Your task to perform on an android device: Go to ESPN.com Image 0: 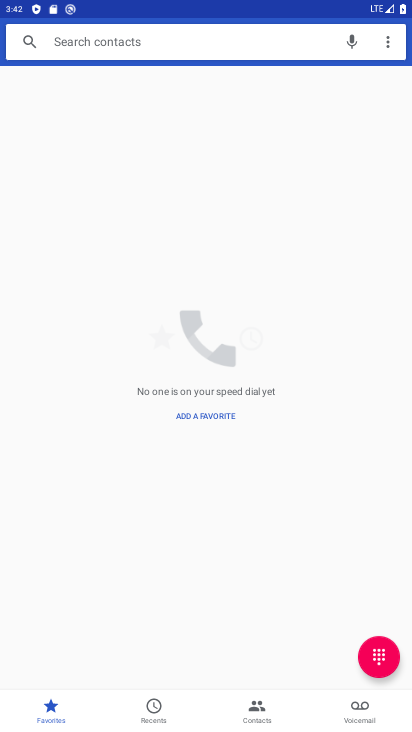
Step 0: press home button
Your task to perform on an android device: Go to ESPN.com Image 1: 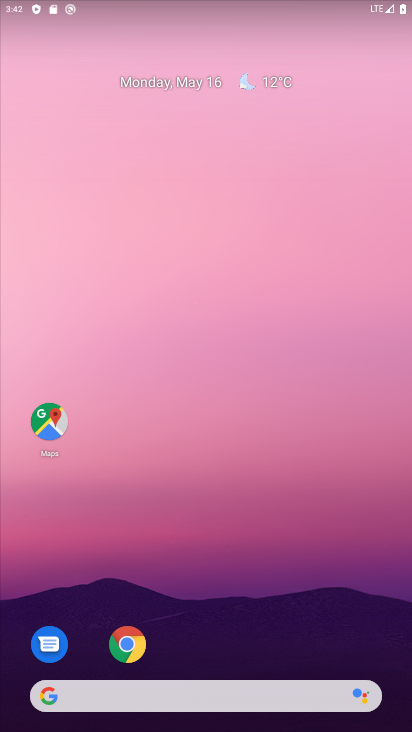
Step 1: click (138, 629)
Your task to perform on an android device: Go to ESPN.com Image 2: 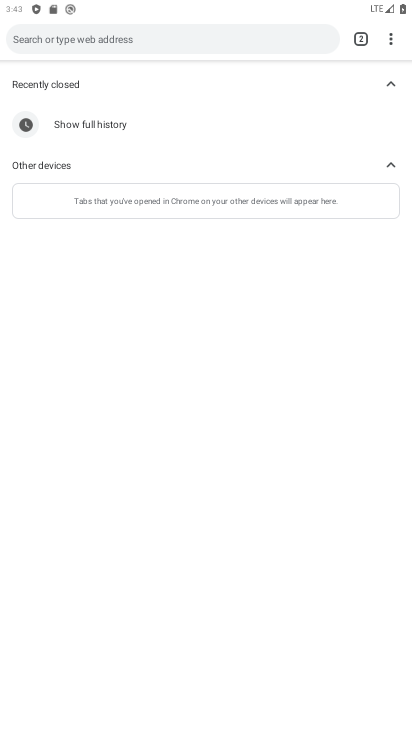
Step 2: click (360, 35)
Your task to perform on an android device: Go to ESPN.com Image 3: 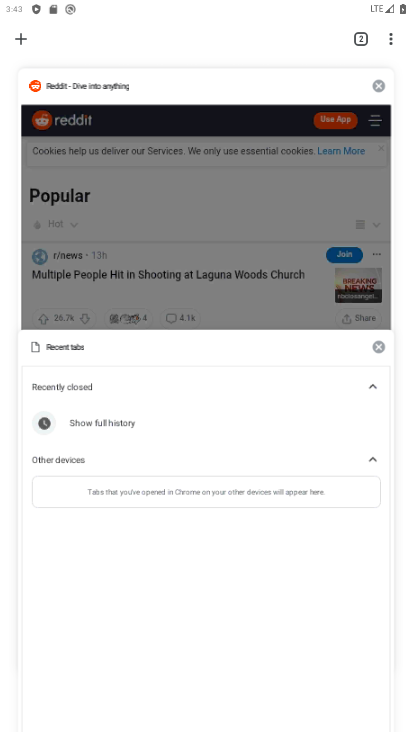
Step 3: click (17, 43)
Your task to perform on an android device: Go to ESPN.com Image 4: 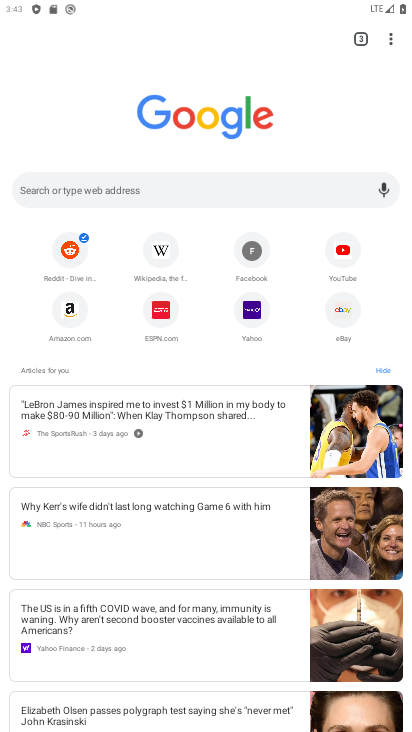
Step 4: click (156, 314)
Your task to perform on an android device: Go to ESPN.com Image 5: 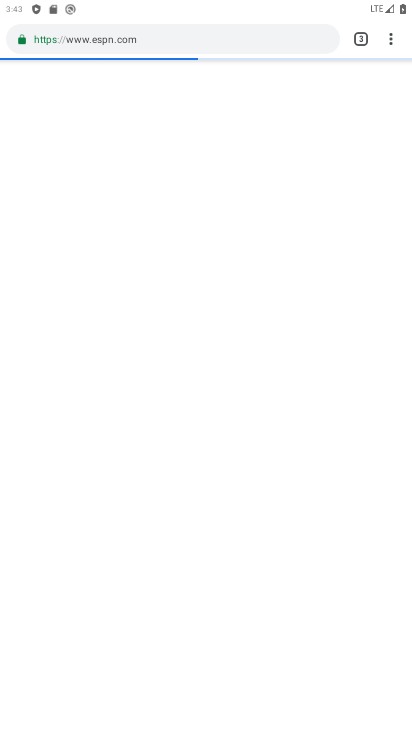
Step 5: click (164, 316)
Your task to perform on an android device: Go to ESPN.com Image 6: 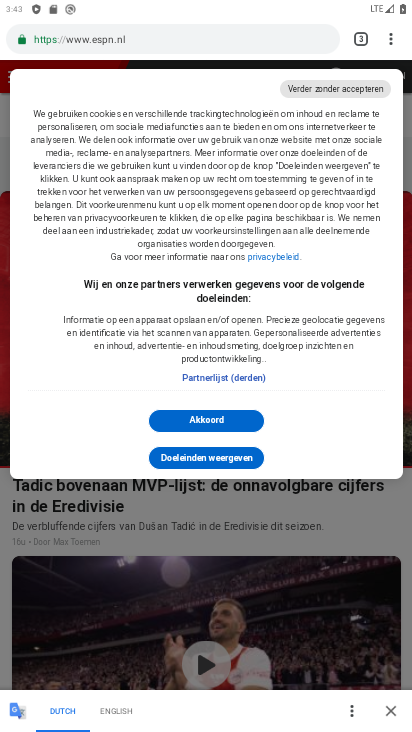
Step 6: task complete